Your task to perform on an android device: Go to CNN.com Image 0: 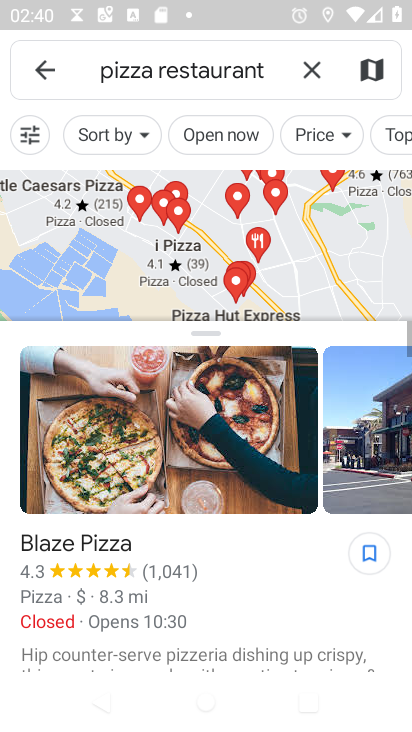
Step 0: press home button
Your task to perform on an android device: Go to CNN.com Image 1: 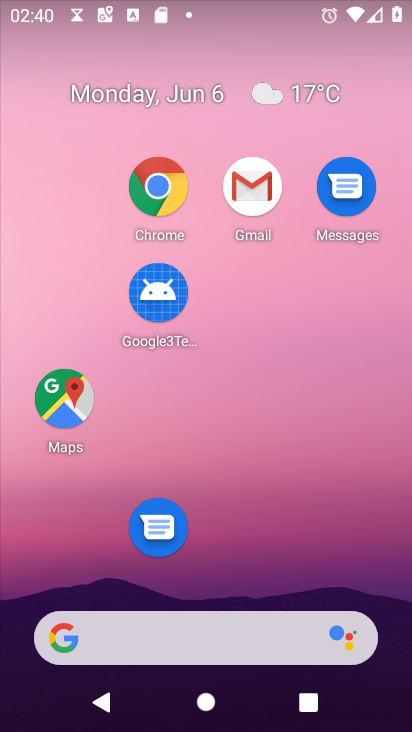
Step 1: click (153, 193)
Your task to perform on an android device: Go to CNN.com Image 2: 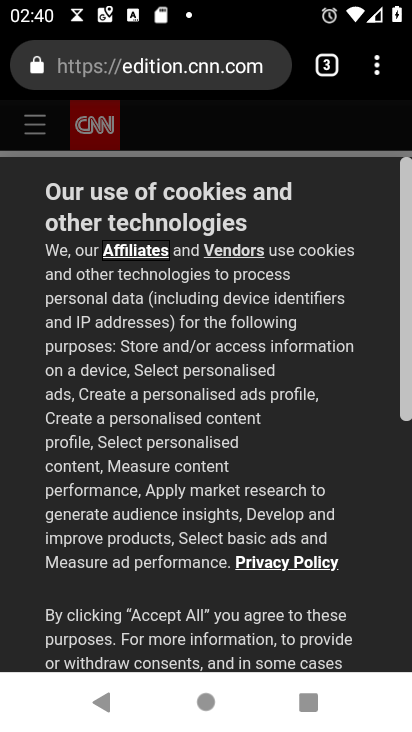
Step 2: task complete